Your task to perform on an android device: open the mobile data screen to see how much data has been used Image 0: 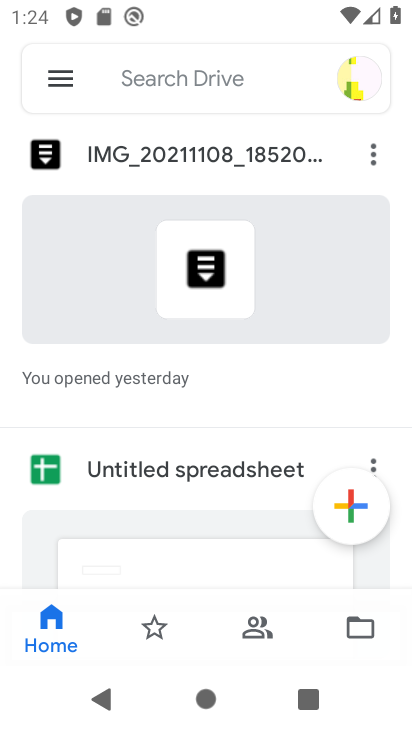
Step 0: press home button
Your task to perform on an android device: open the mobile data screen to see how much data has been used Image 1: 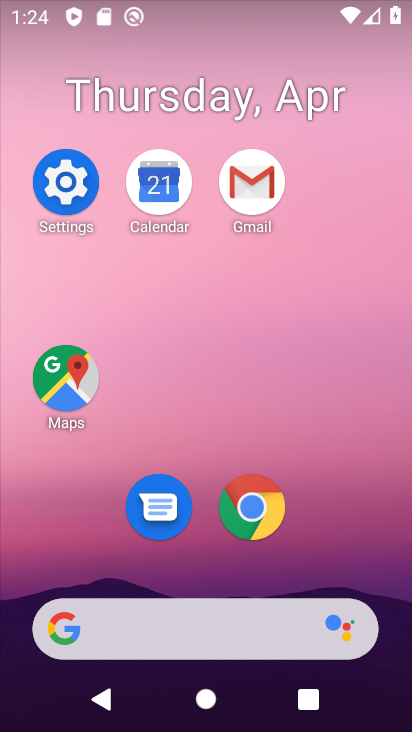
Step 1: click (58, 182)
Your task to perform on an android device: open the mobile data screen to see how much data has been used Image 2: 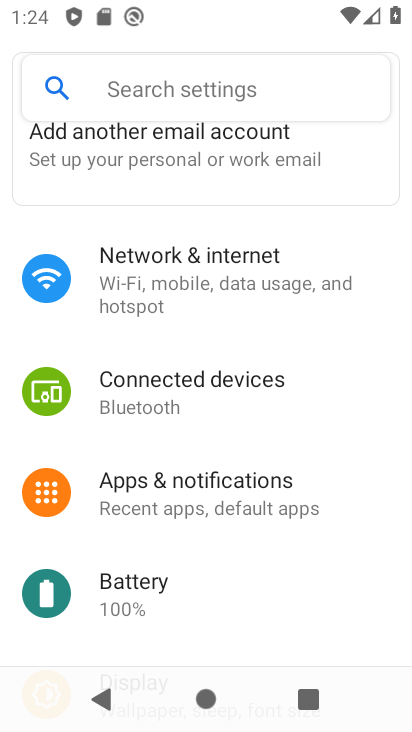
Step 2: click (229, 242)
Your task to perform on an android device: open the mobile data screen to see how much data has been used Image 3: 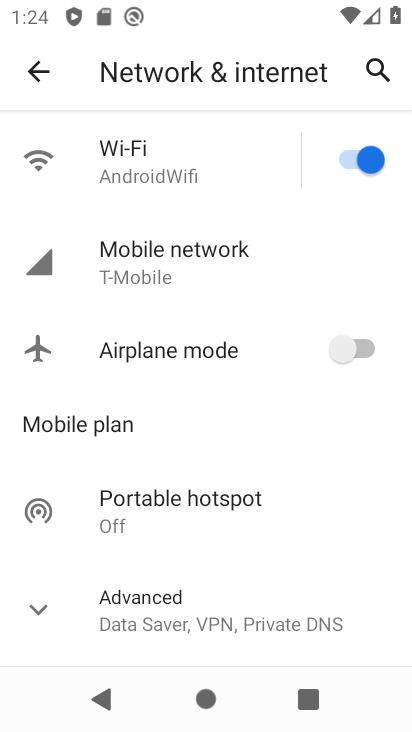
Step 3: click (230, 253)
Your task to perform on an android device: open the mobile data screen to see how much data has been used Image 4: 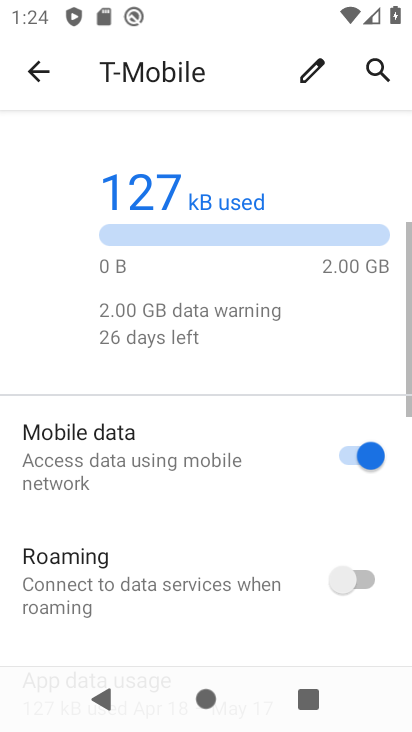
Step 4: drag from (219, 540) to (245, 193)
Your task to perform on an android device: open the mobile data screen to see how much data has been used Image 5: 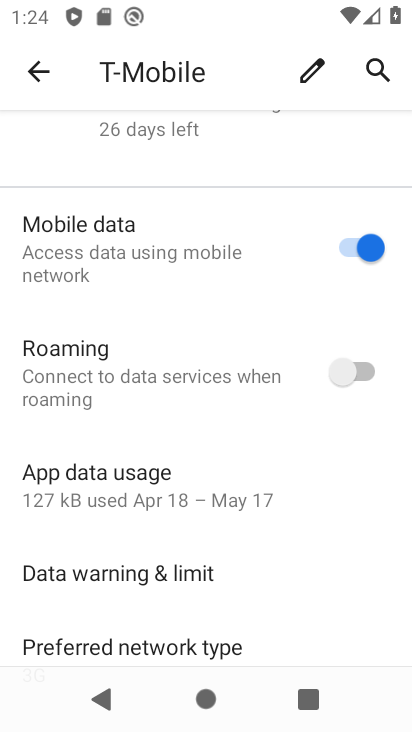
Step 5: click (228, 497)
Your task to perform on an android device: open the mobile data screen to see how much data has been used Image 6: 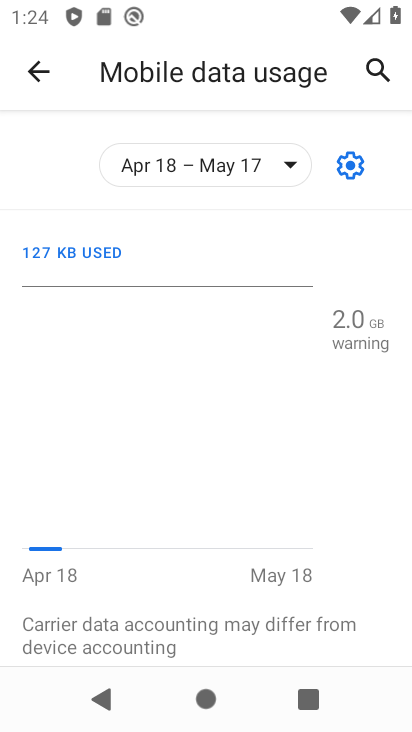
Step 6: task complete